Your task to perform on an android device: turn on sleep mode Image 0: 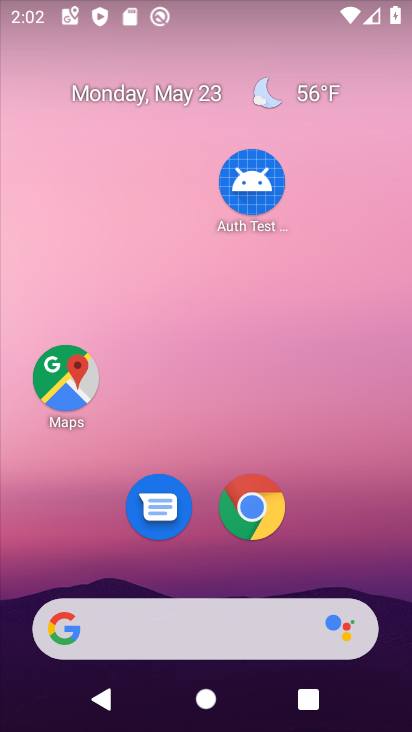
Step 0: drag from (238, 633) to (177, 184)
Your task to perform on an android device: turn on sleep mode Image 1: 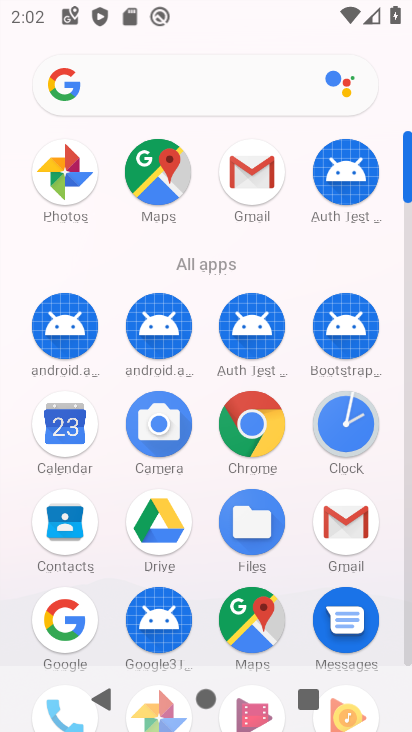
Step 1: drag from (225, 558) to (128, 58)
Your task to perform on an android device: turn on sleep mode Image 2: 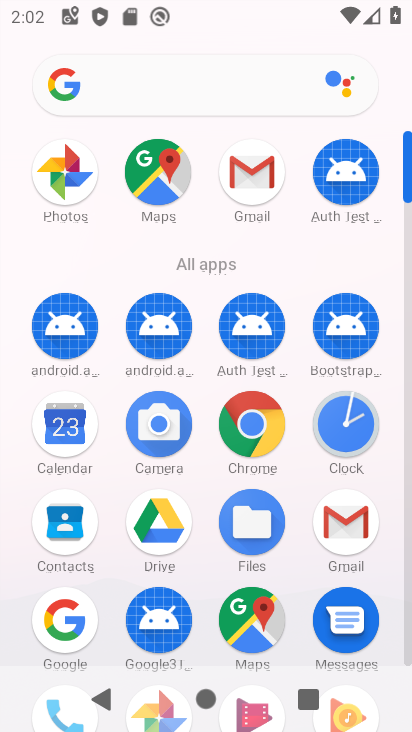
Step 2: drag from (248, 1) to (265, 46)
Your task to perform on an android device: turn on sleep mode Image 3: 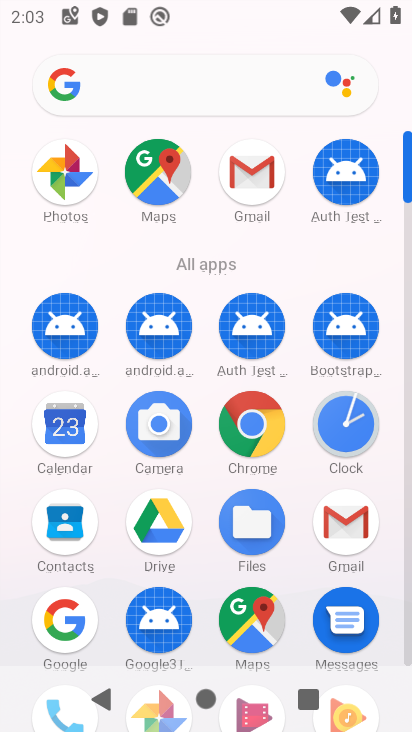
Step 3: drag from (181, 596) to (214, 188)
Your task to perform on an android device: turn on sleep mode Image 4: 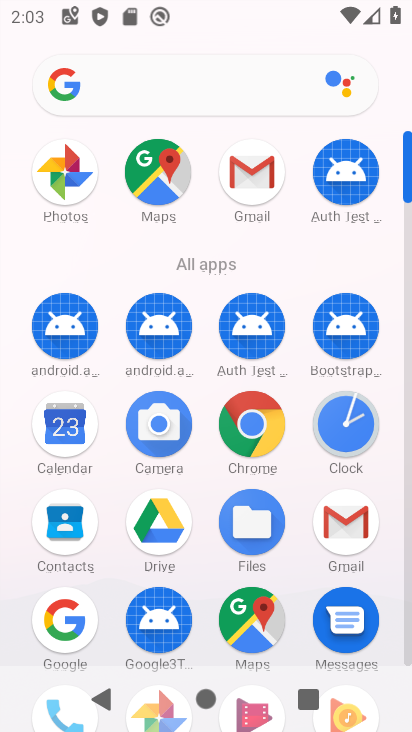
Step 4: drag from (216, 457) to (217, 226)
Your task to perform on an android device: turn on sleep mode Image 5: 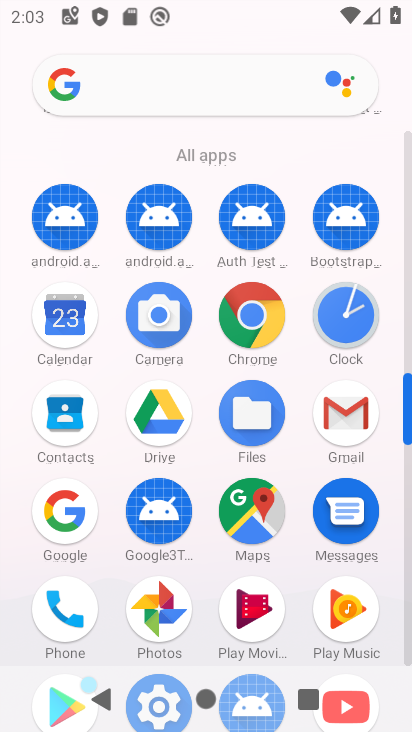
Step 5: drag from (248, 483) to (242, 237)
Your task to perform on an android device: turn on sleep mode Image 6: 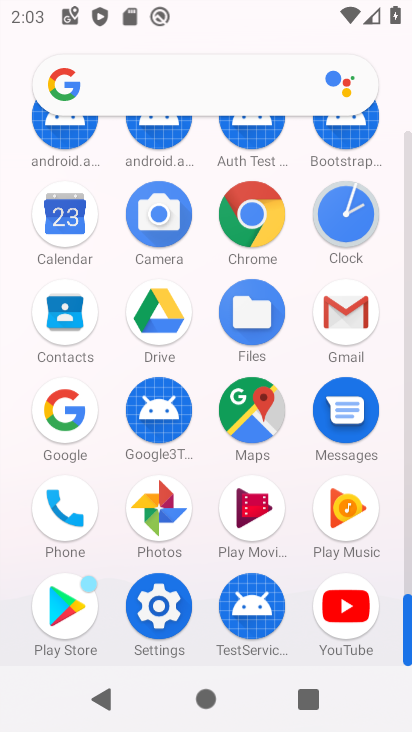
Step 6: drag from (238, 466) to (249, 306)
Your task to perform on an android device: turn on sleep mode Image 7: 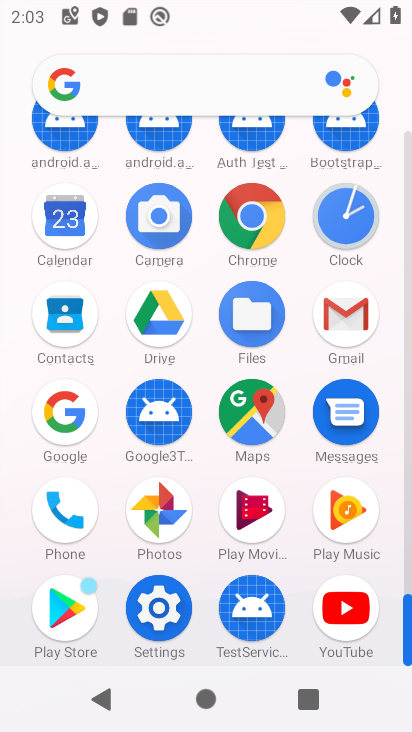
Step 7: click (160, 609)
Your task to perform on an android device: turn on sleep mode Image 8: 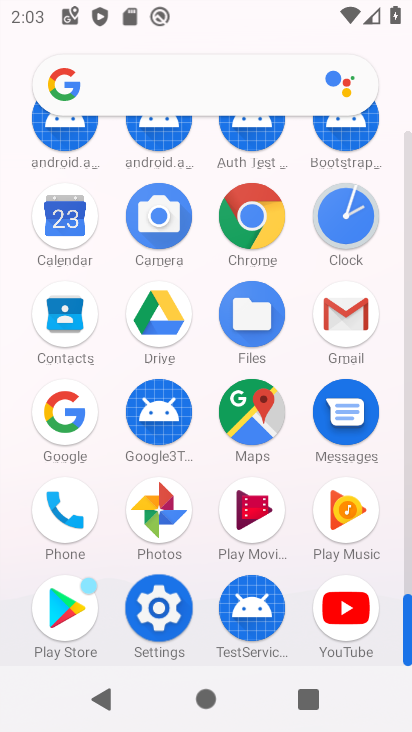
Step 8: click (160, 609)
Your task to perform on an android device: turn on sleep mode Image 9: 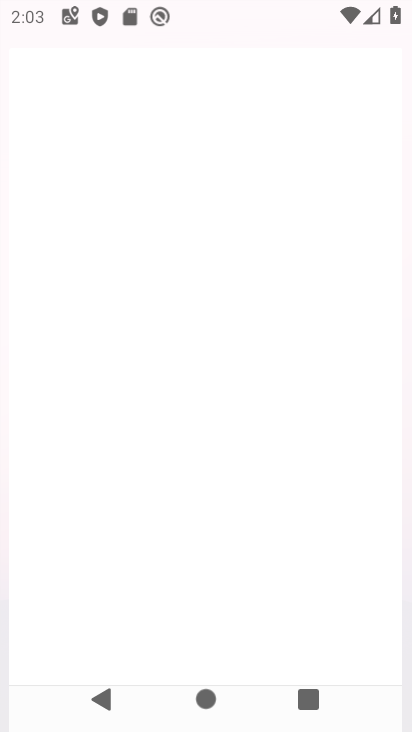
Step 9: click (160, 609)
Your task to perform on an android device: turn on sleep mode Image 10: 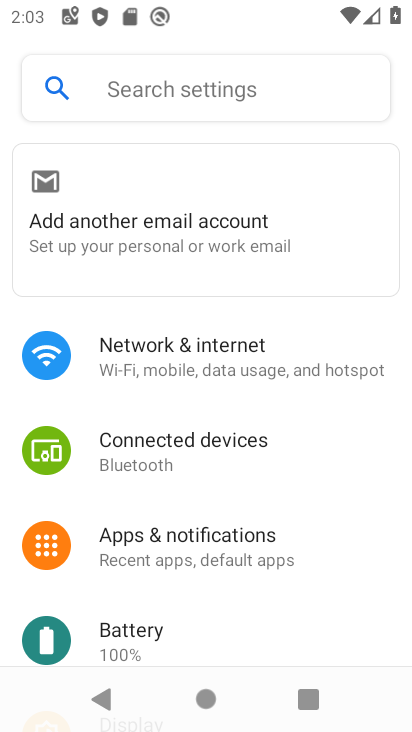
Step 10: drag from (210, 605) to (220, 277)
Your task to perform on an android device: turn on sleep mode Image 11: 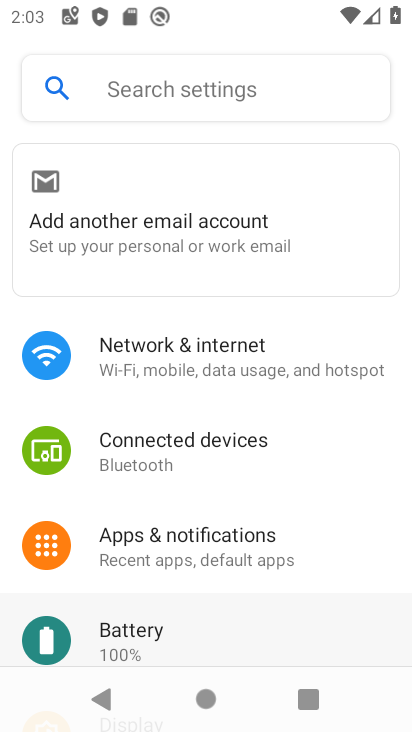
Step 11: drag from (211, 435) to (202, 162)
Your task to perform on an android device: turn on sleep mode Image 12: 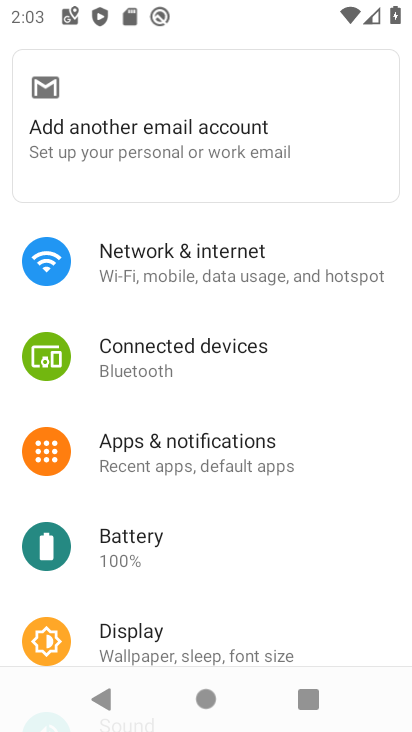
Step 12: drag from (195, 489) to (194, 152)
Your task to perform on an android device: turn on sleep mode Image 13: 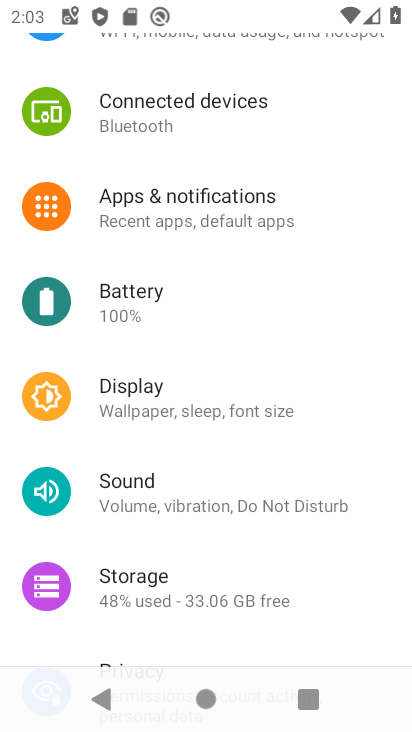
Step 13: drag from (221, 434) to (221, 123)
Your task to perform on an android device: turn on sleep mode Image 14: 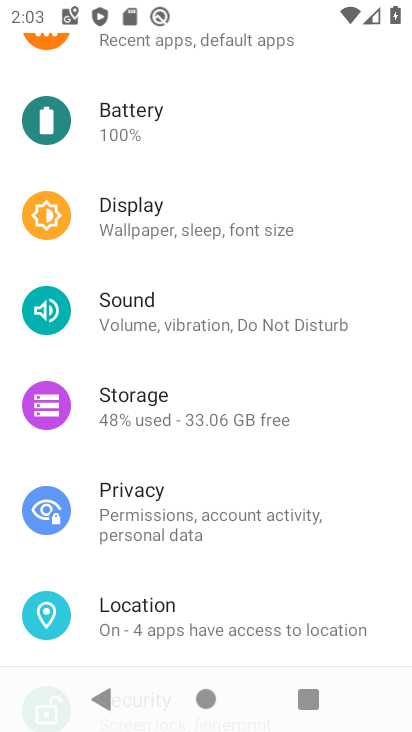
Step 14: drag from (149, 408) to (195, 208)
Your task to perform on an android device: turn on sleep mode Image 15: 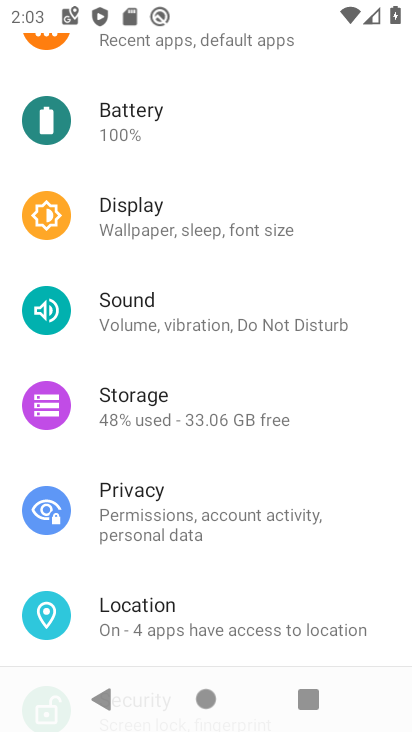
Step 15: click (143, 228)
Your task to perform on an android device: turn on sleep mode Image 16: 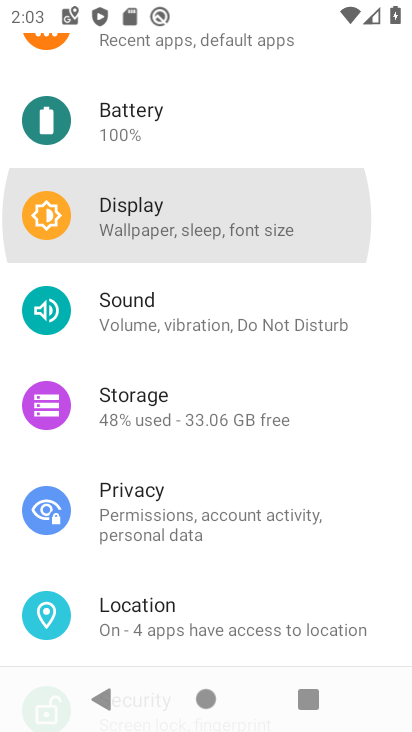
Step 16: click (143, 228)
Your task to perform on an android device: turn on sleep mode Image 17: 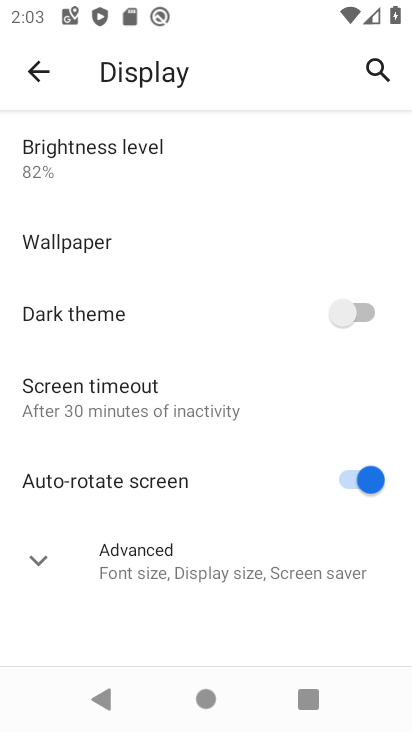
Step 17: task complete